Your task to perform on an android device: turn on the 12-hour format for clock Image 0: 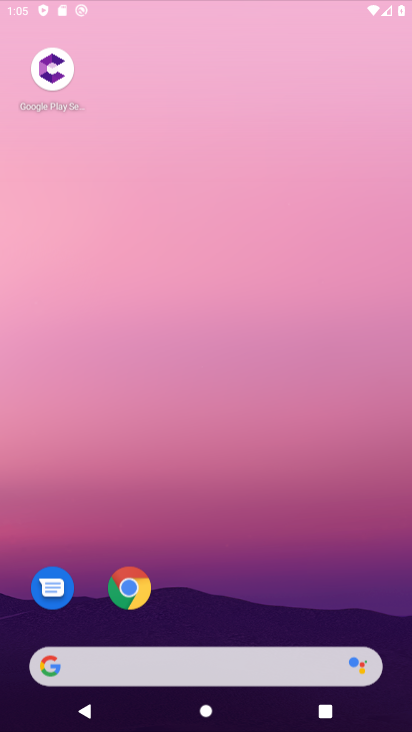
Step 0: drag from (199, 165) to (288, 101)
Your task to perform on an android device: turn on the 12-hour format for clock Image 1: 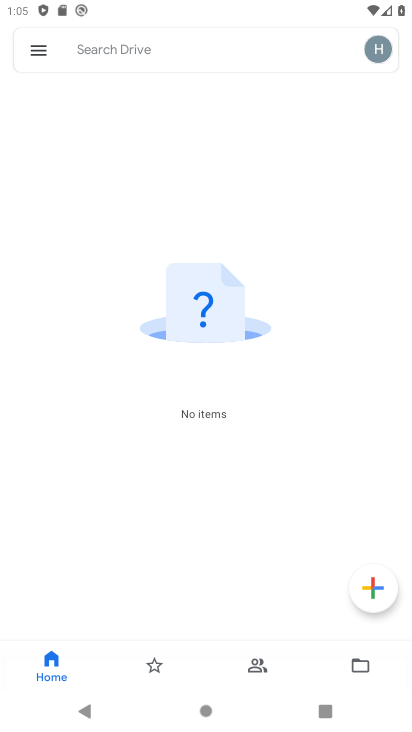
Step 1: press home button
Your task to perform on an android device: turn on the 12-hour format for clock Image 2: 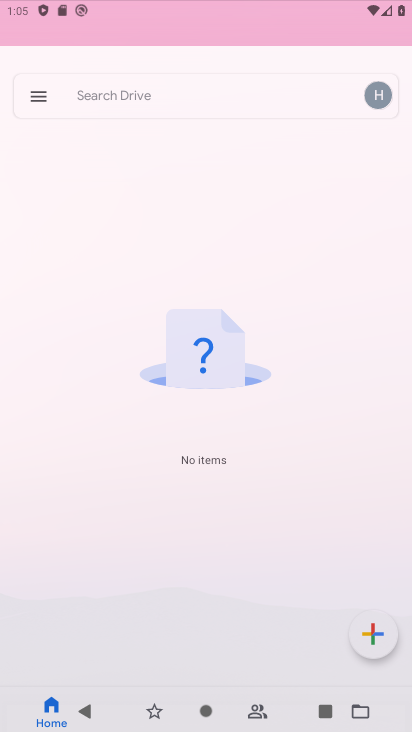
Step 2: drag from (234, 571) to (251, 70)
Your task to perform on an android device: turn on the 12-hour format for clock Image 3: 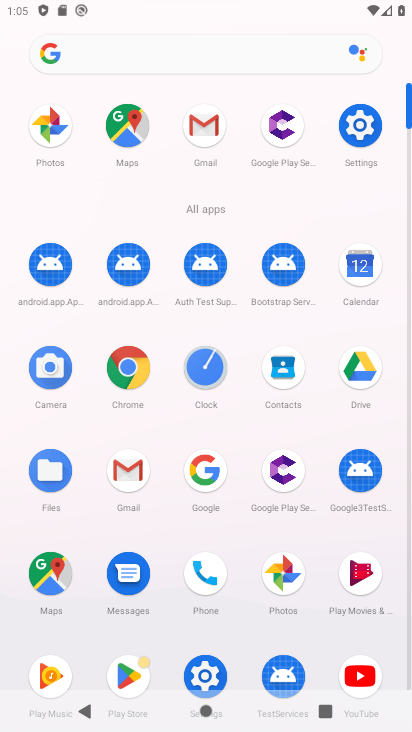
Step 3: drag from (201, 575) to (220, 33)
Your task to perform on an android device: turn on the 12-hour format for clock Image 4: 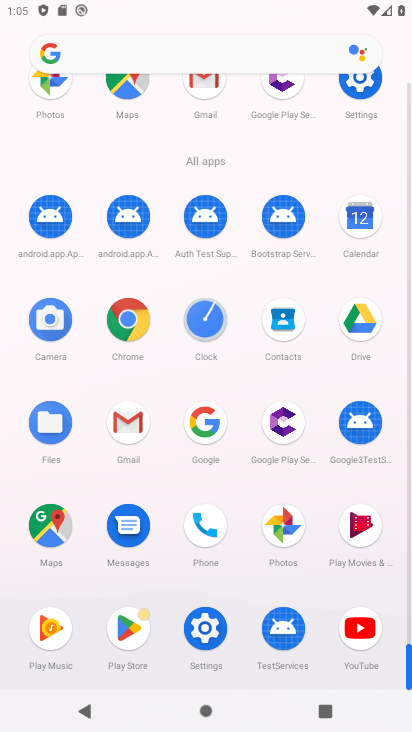
Step 4: click (210, 313)
Your task to perform on an android device: turn on the 12-hour format for clock Image 5: 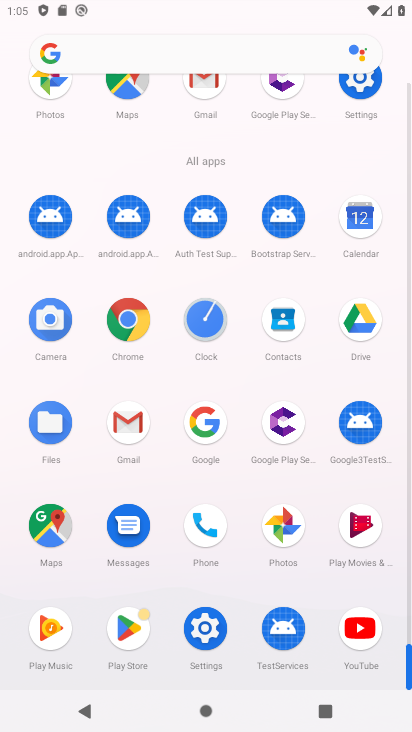
Step 5: click (210, 313)
Your task to perform on an android device: turn on the 12-hour format for clock Image 6: 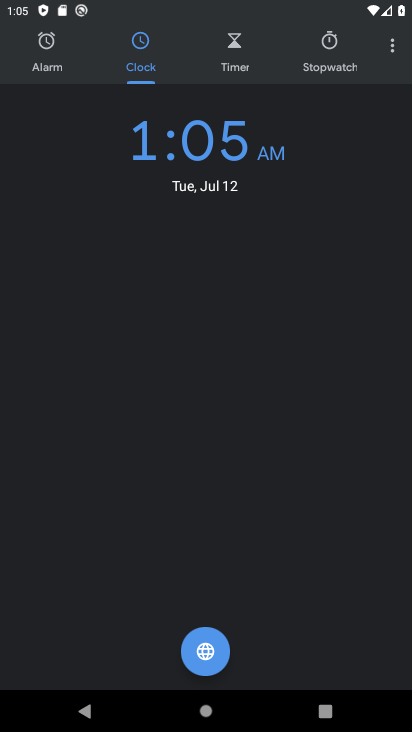
Step 6: click (391, 58)
Your task to perform on an android device: turn on the 12-hour format for clock Image 7: 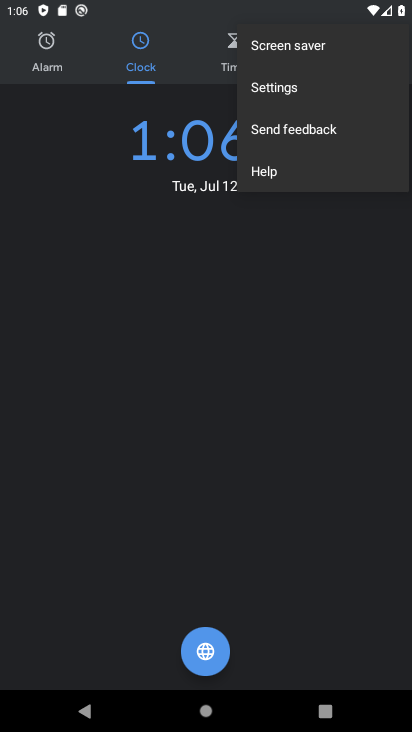
Step 7: click (294, 78)
Your task to perform on an android device: turn on the 12-hour format for clock Image 8: 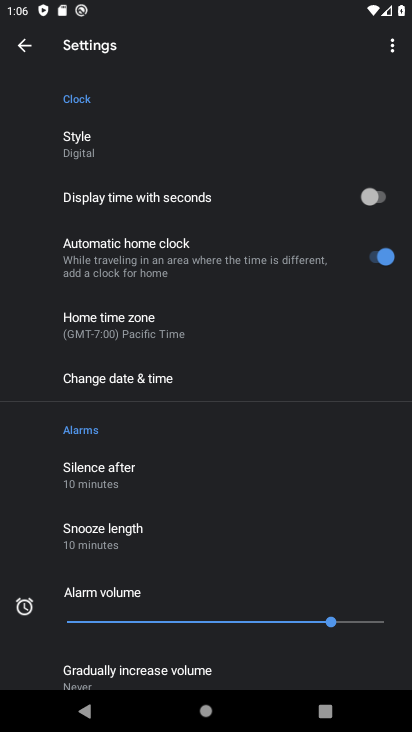
Step 8: click (108, 379)
Your task to perform on an android device: turn on the 12-hour format for clock Image 9: 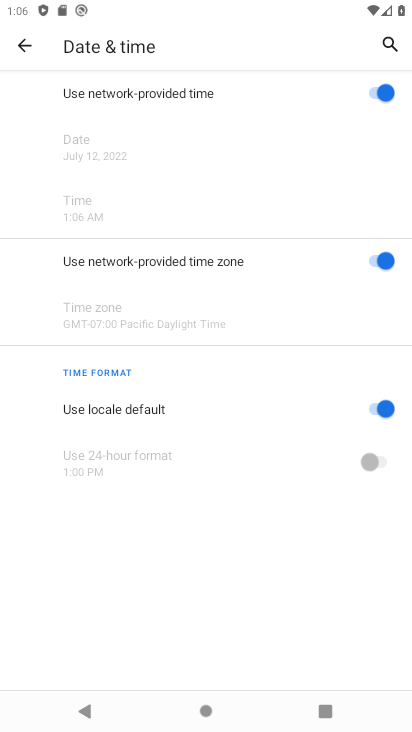
Step 9: task complete